Your task to perform on an android device: stop showing notifications on the lock screen Image 0: 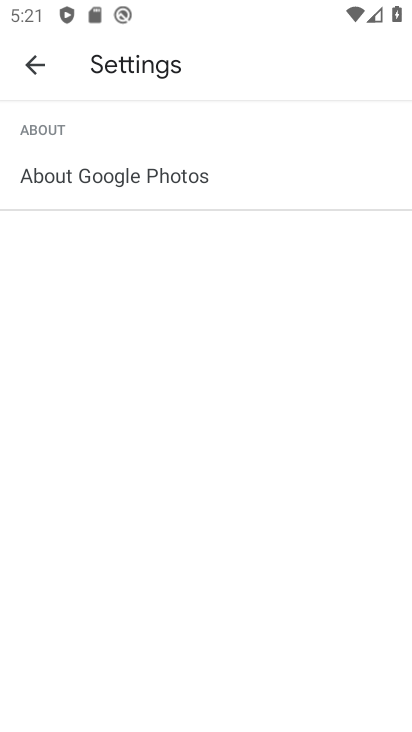
Step 0: press home button
Your task to perform on an android device: stop showing notifications on the lock screen Image 1: 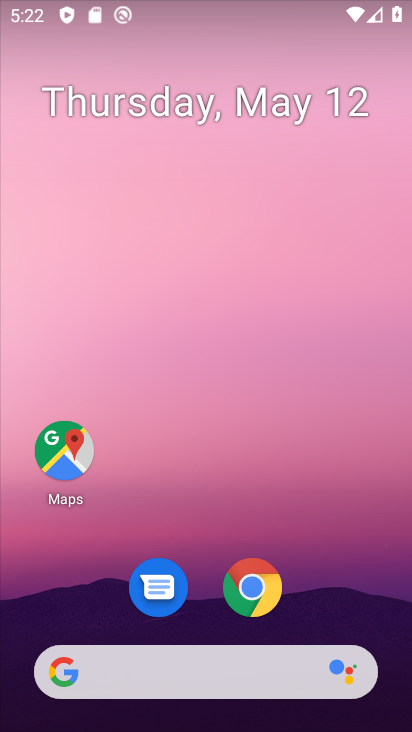
Step 1: drag from (297, 612) to (235, 221)
Your task to perform on an android device: stop showing notifications on the lock screen Image 2: 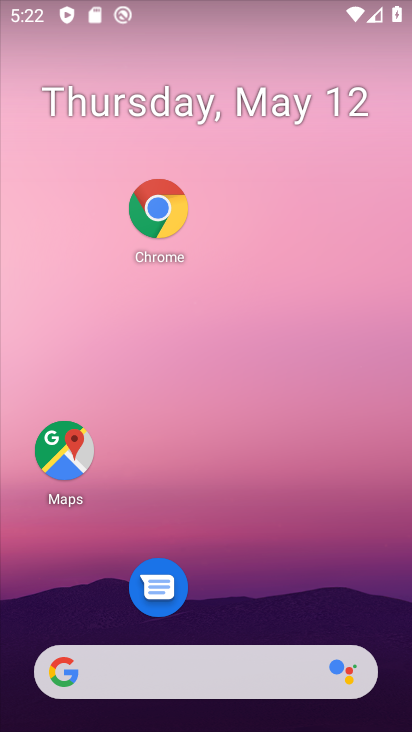
Step 2: drag from (232, 607) to (202, 198)
Your task to perform on an android device: stop showing notifications on the lock screen Image 3: 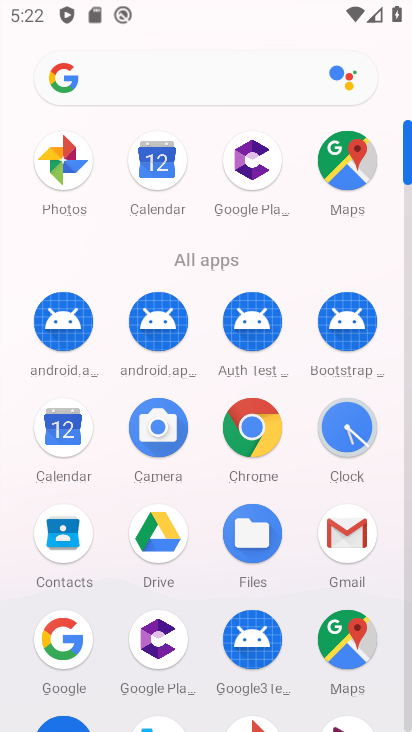
Step 3: drag from (181, 709) to (190, 214)
Your task to perform on an android device: stop showing notifications on the lock screen Image 4: 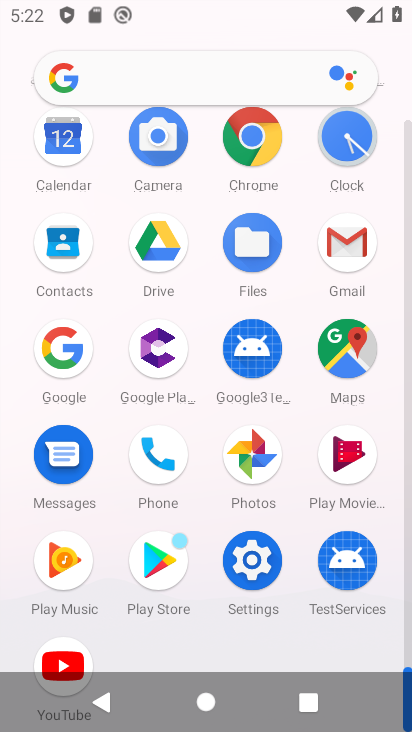
Step 4: click (243, 566)
Your task to perform on an android device: stop showing notifications on the lock screen Image 5: 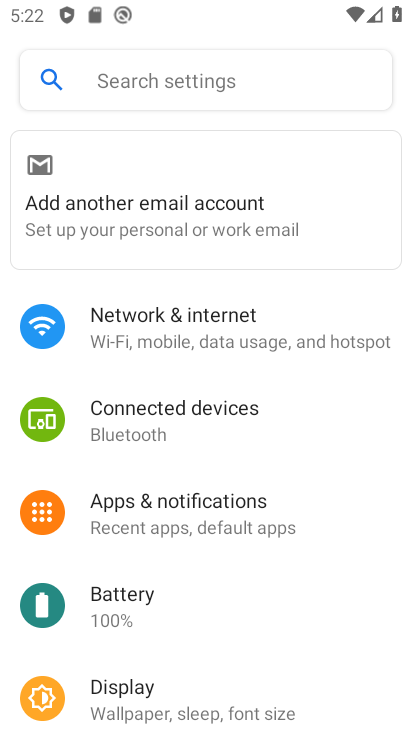
Step 5: drag from (228, 620) to (229, 278)
Your task to perform on an android device: stop showing notifications on the lock screen Image 6: 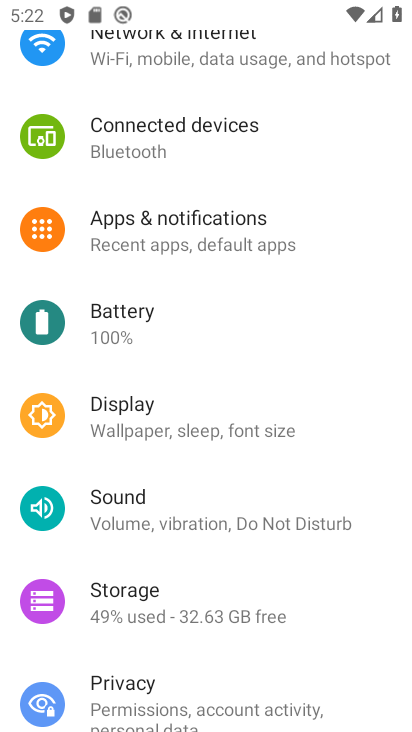
Step 6: click (214, 237)
Your task to perform on an android device: stop showing notifications on the lock screen Image 7: 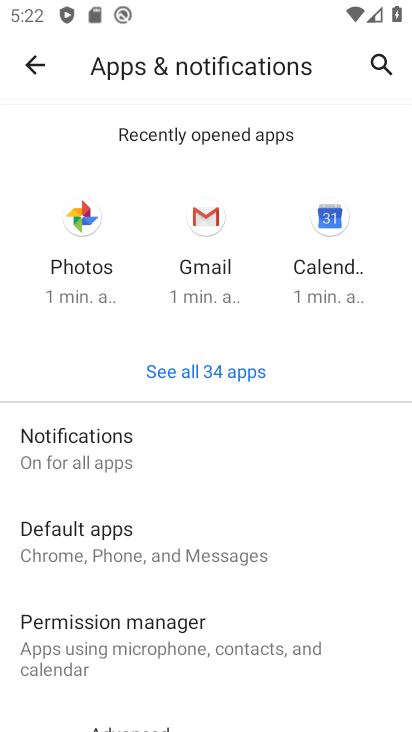
Step 7: drag from (231, 594) to (252, 267)
Your task to perform on an android device: stop showing notifications on the lock screen Image 8: 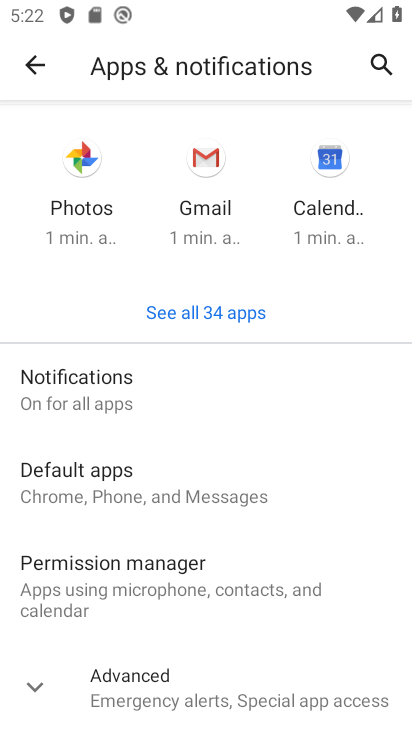
Step 8: click (88, 412)
Your task to perform on an android device: stop showing notifications on the lock screen Image 9: 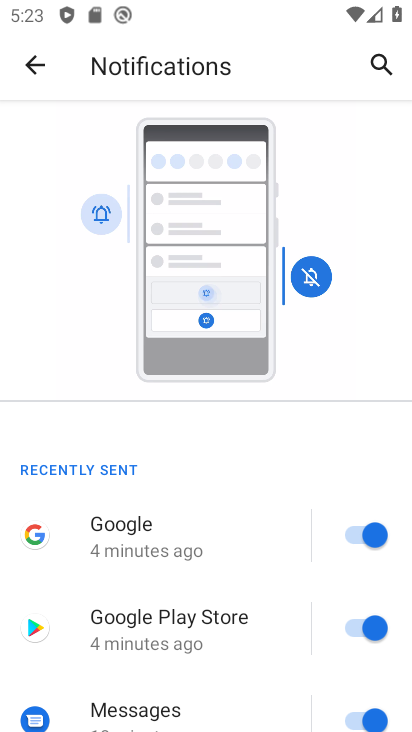
Step 9: click (194, 150)
Your task to perform on an android device: stop showing notifications on the lock screen Image 10: 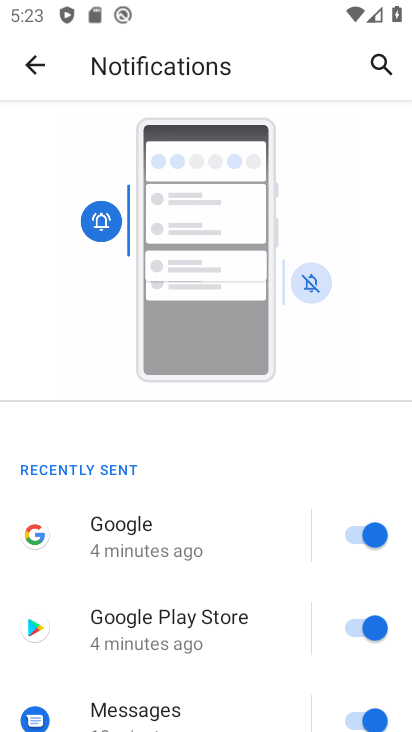
Step 10: drag from (223, 650) to (251, 196)
Your task to perform on an android device: stop showing notifications on the lock screen Image 11: 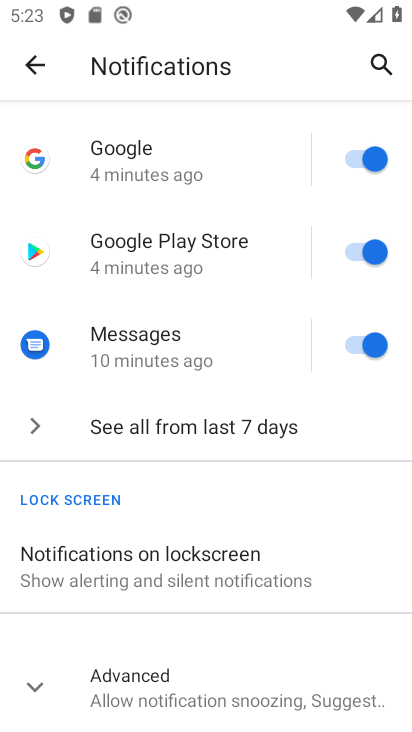
Step 11: click (180, 570)
Your task to perform on an android device: stop showing notifications on the lock screen Image 12: 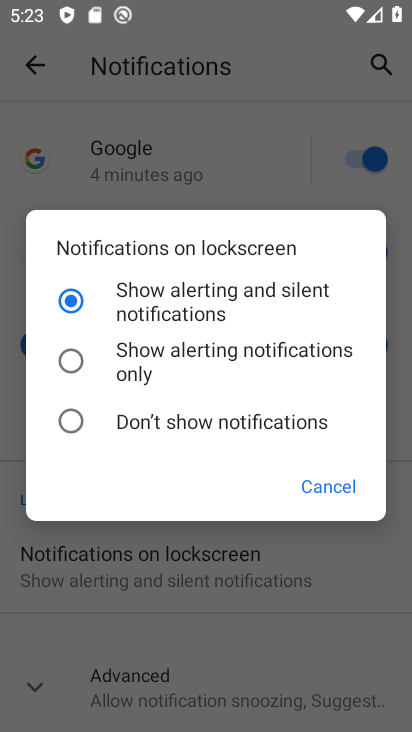
Step 12: click (73, 417)
Your task to perform on an android device: stop showing notifications on the lock screen Image 13: 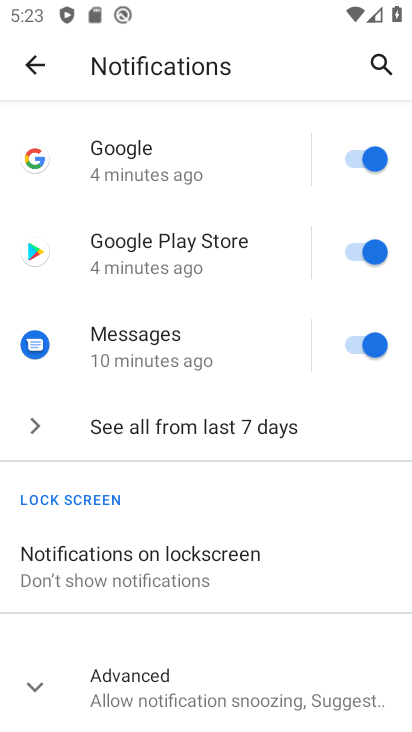
Step 13: task complete